Your task to perform on an android device: star an email in the gmail app Image 0: 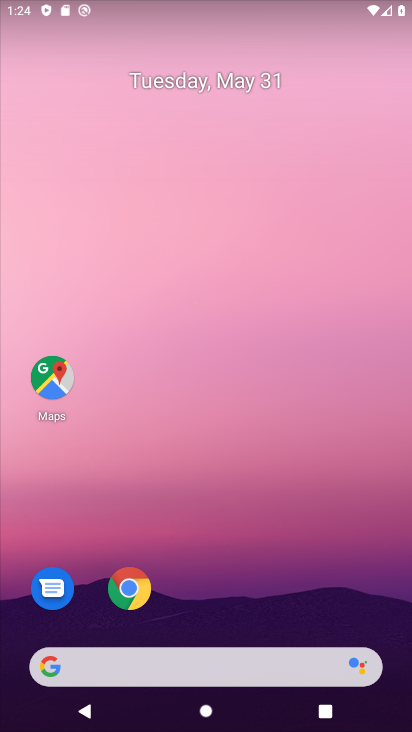
Step 0: press home button
Your task to perform on an android device: star an email in the gmail app Image 1: 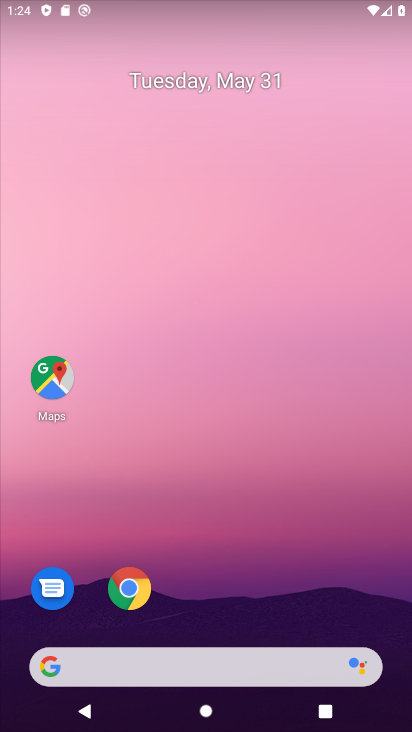
Step 1: drag from (224, 612) to (163, 140)
Your task to perform on an android device: star an email in the gmail app Image 2: 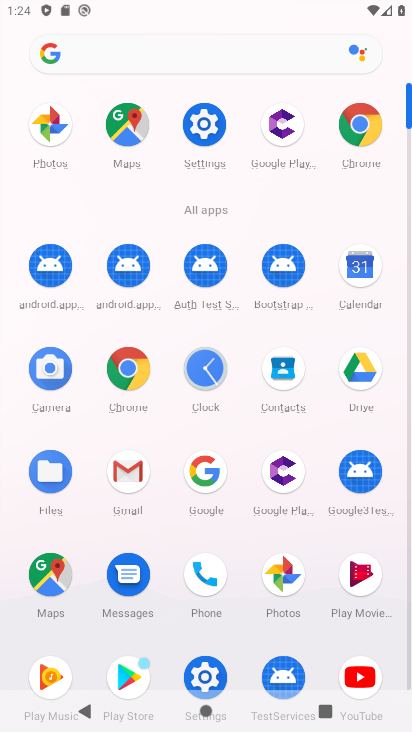
Step 2: click (125, 473)
Your task to perform on an android device: star an email in the gmail app Image 3: 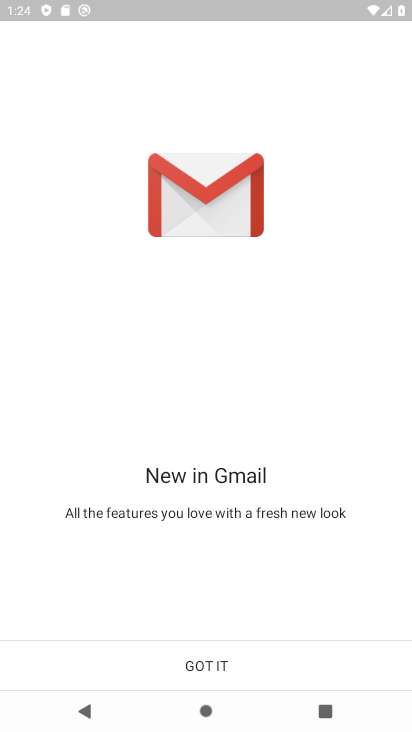
Step 3: click (211, 662)
Your task to perform on an android device: star an email in the gmail app Image 4: 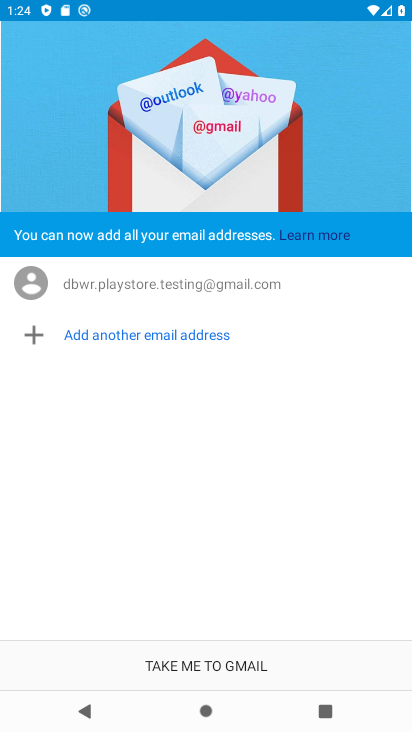
Step 4: click (211, 662)
Your task to perform on an android device: star an email in the gmail app Image 5: 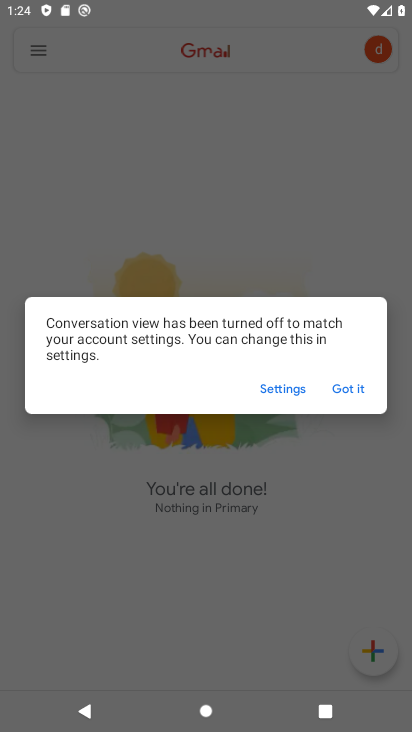
Step 5: click (342, 388)
Your task to perform on an android device: star an email in the gmail app Image 6: 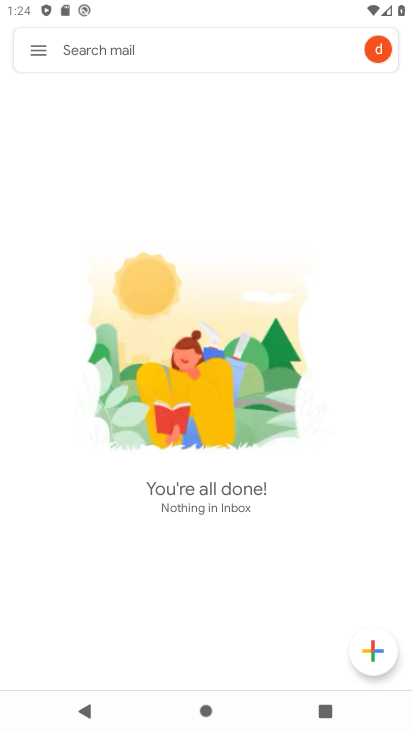
Step 6: click (40, 54)
Your task to perform on an android device: star an email in the gmail app Image 7: 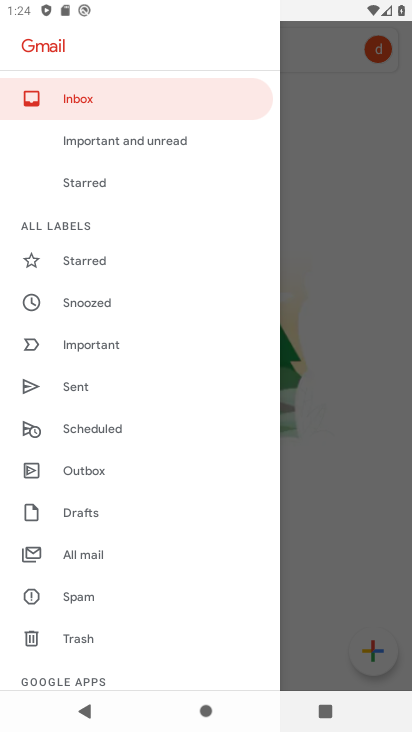
Step 7: click (97, 560)
Your task to perform on an android device: star an email in the gmail app Image 8: 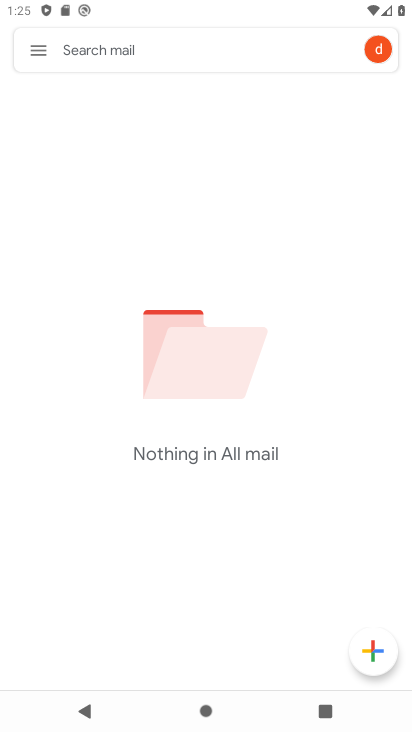
Step 8: task complete